Your task to perform on an android device: See recent photos Image 0: 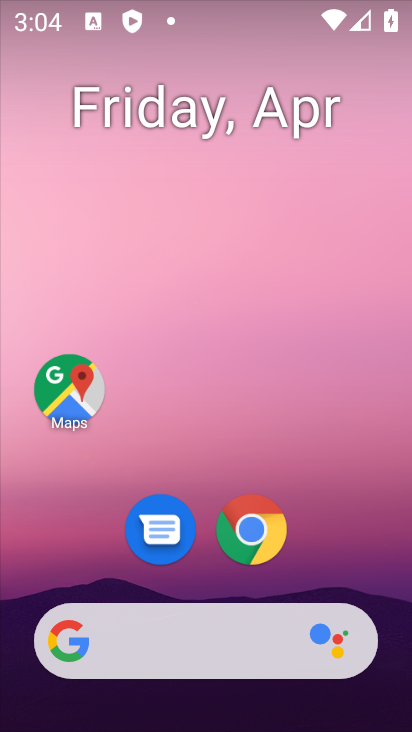
Step 0: drag from (277, 640) to (279, 139)
Your task to perform on an android device: See recent photos Image 1: 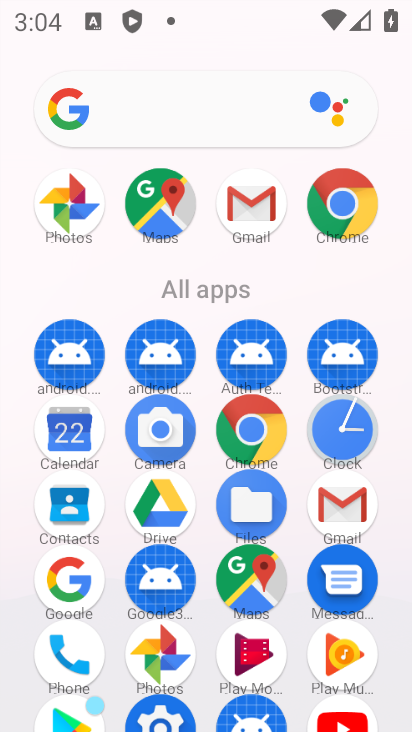
Step 1: drag from (258, 521) to (281, 223)
Your task to perform on an android device: See recent photos Image 2: 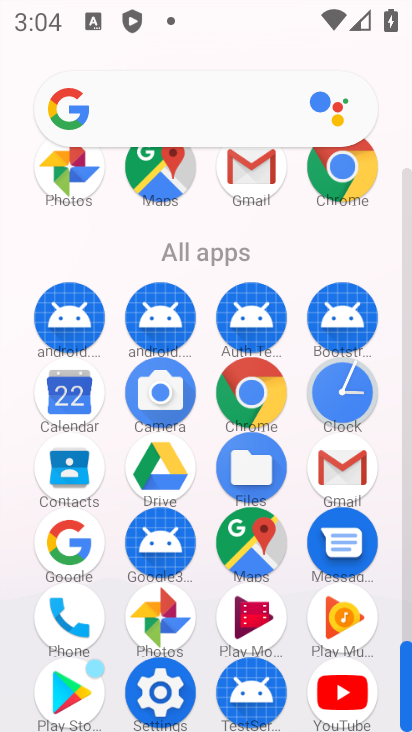
Step 2: click (164, 626)
Your task to perform on an android device: See recent photos Image 3: 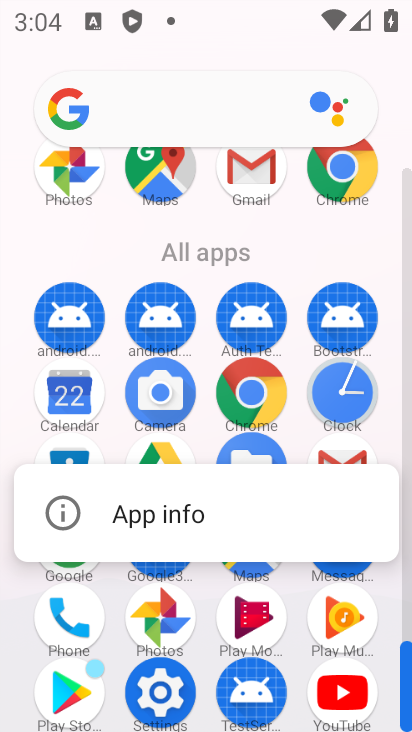
Step 3: click (164, 626)
Your task to perform on an android device: See recent photos Image 4: 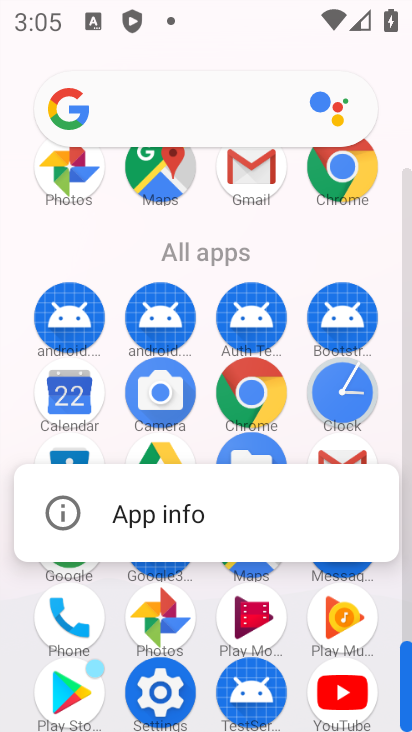
Step 4: click (164, 626)
Your task to perform on an android device: See recent photos Image 5: 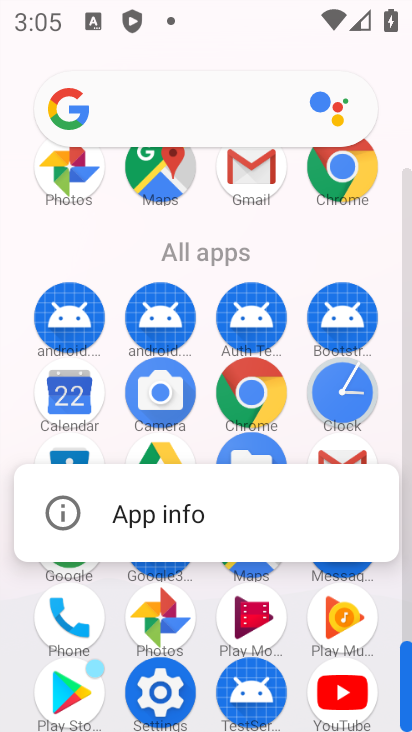
Step 5: click (164, 626)
Your task to perform on an android device: See recent photos Image 6: 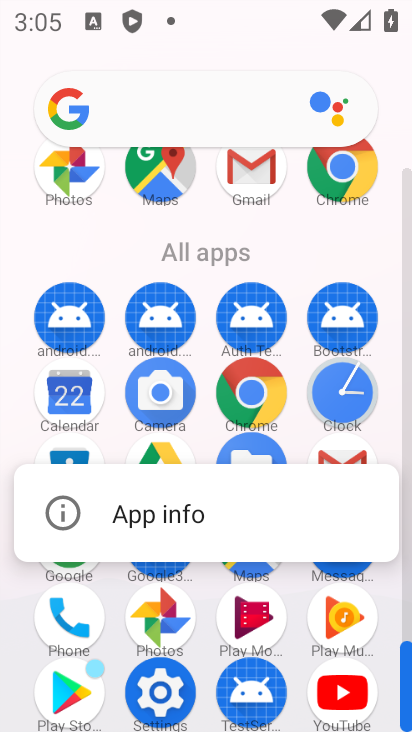
Step 6: click (164, 626)
Your task to perform on an android device: See recent photos Image 7: 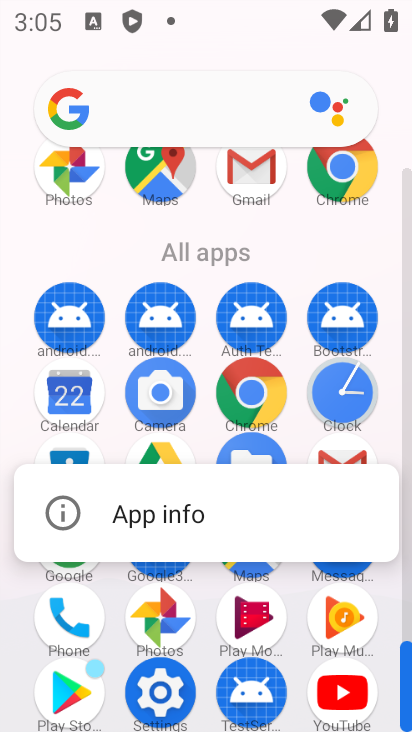
Step 7: click (164, 626)
Your task to perform on an android device: See recent photos Image 8: 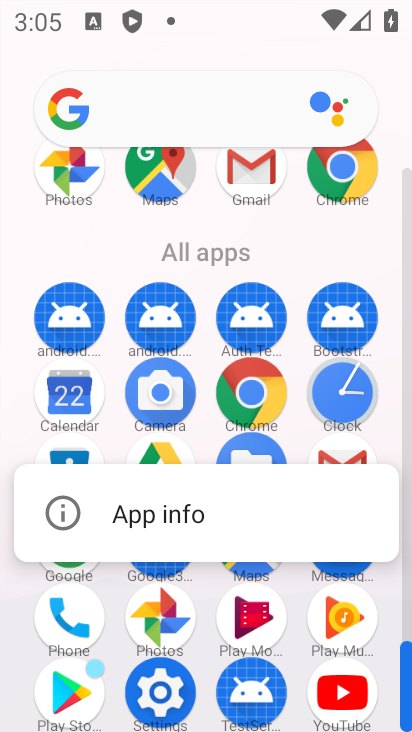
Step 8: click (162, 595)
Your task to perform on an android device: See recent photos Image 9: 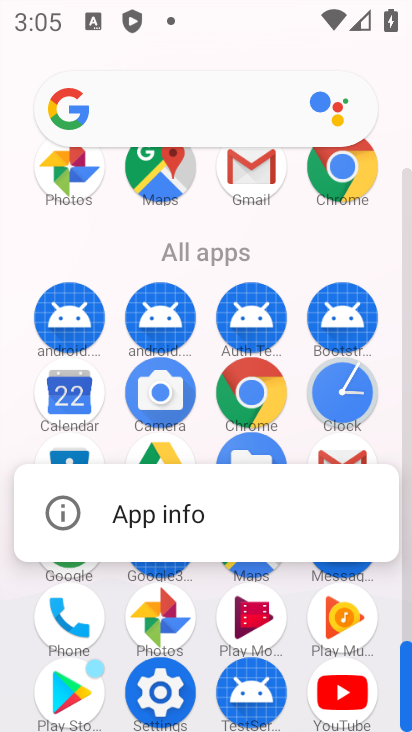
Step 9: click (149, 646)
Your task to perform on an android device: See recent photos Image 10: 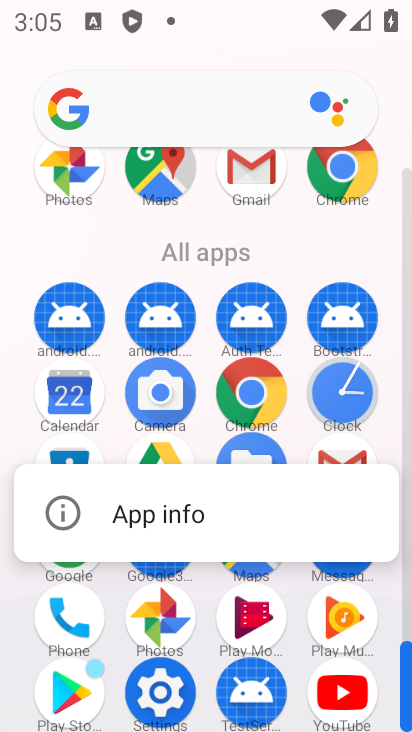
Step 10: click (177, 636)
Your task to perform on an android device: See recent photos Image 11: 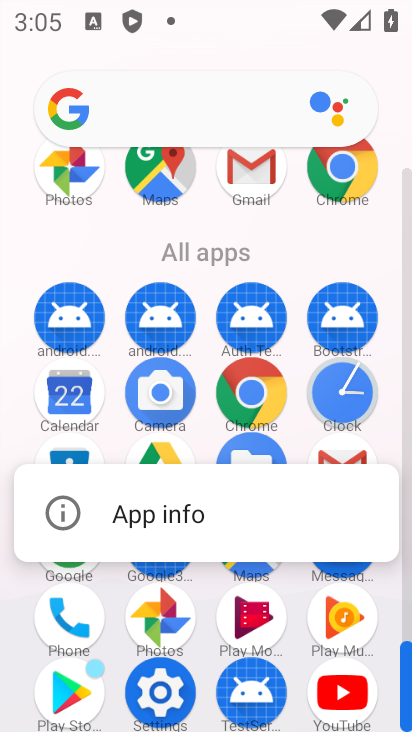
Step 11: click (177, 636)
Your task to perform on an android device: See recent photos Image 12: 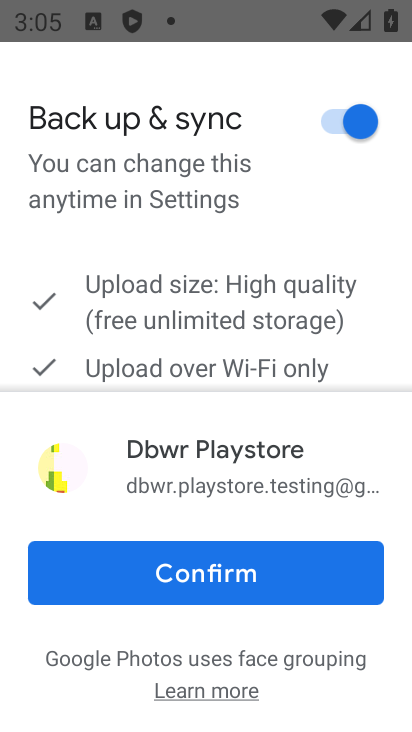
Step 12: click (158, 595)
Your task to perform on an android device: See recent photos Image 13: 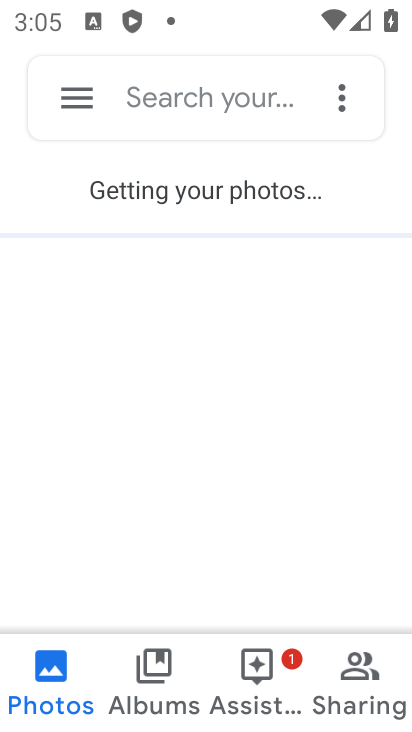
Step 13: task complete